Your task to perform on an android device: turn off translation in the chrome app Image 0: 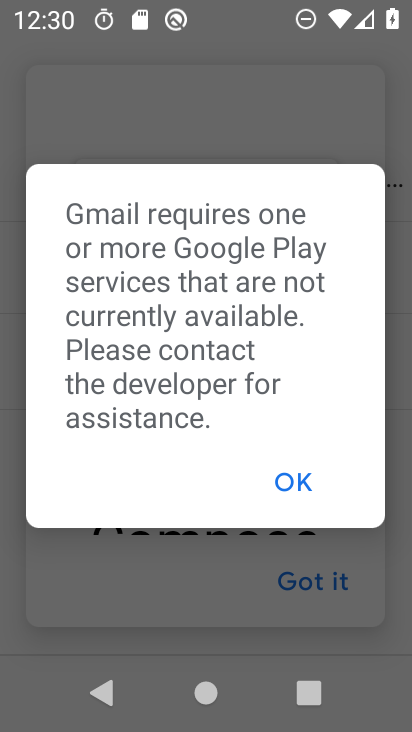
Step 0: press home button
Your task to perform on an android device: turn off translation in the chrome app Image 1: 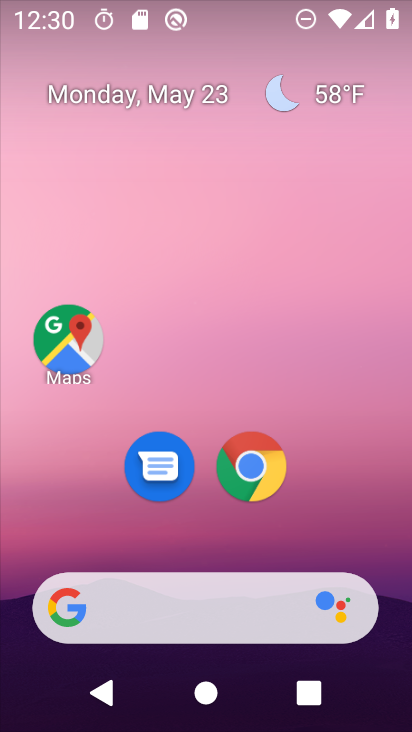
Step 1: click (172, 548)
Your task to perform on an android device: turn off translation in the chrome app Image 2: 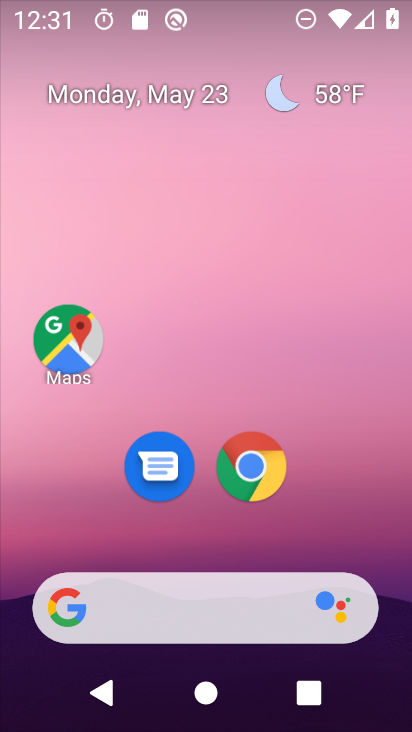
Step 2: click (256, 467)
Your task to perform on an android device: turn off translation in the chrome app Image 3: 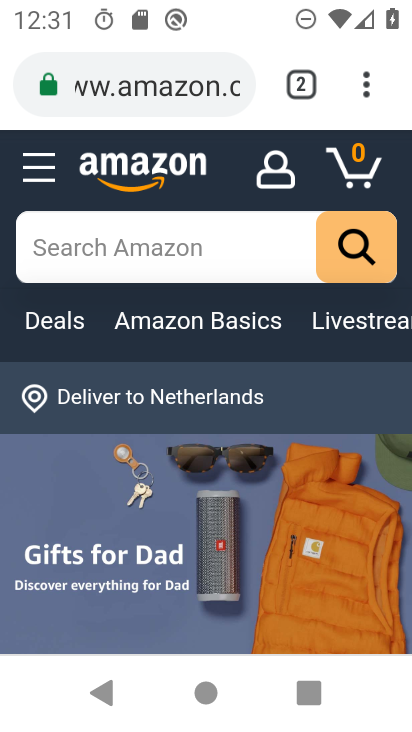
Step 3: click (357, 74)
Your task to perform on an android device: turn off translation in the chrome app Image 4: 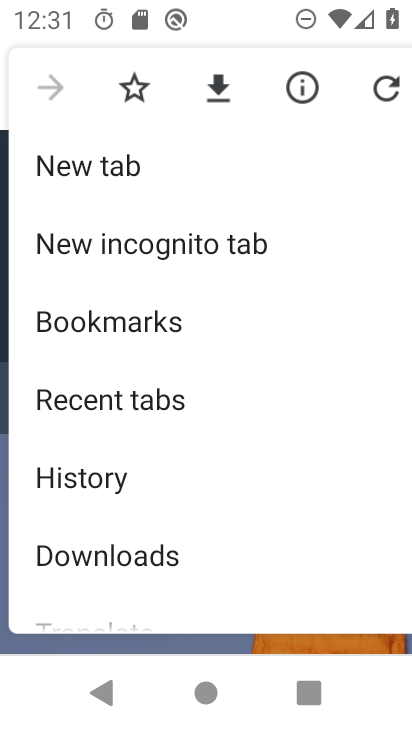
Step 4: drag from (155, 518) to (173, 121)
Your task to perform on an android device: turn off translation in the chrome app Image 5: 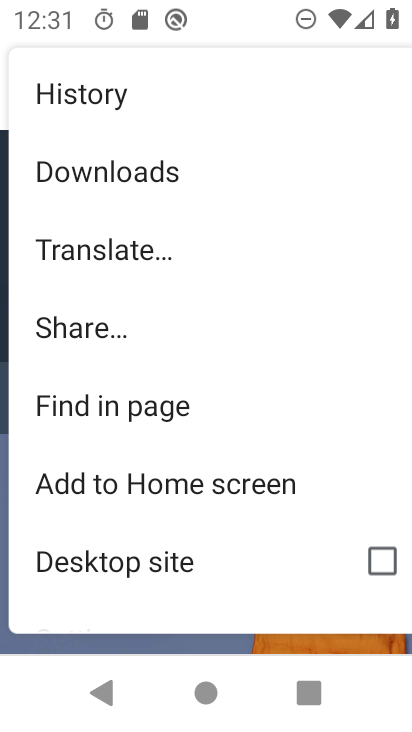
Step 5: drag from (219, 540) to (203, 229)
Your task to perform on an android device: turn off translation in the chrome app Image 6: 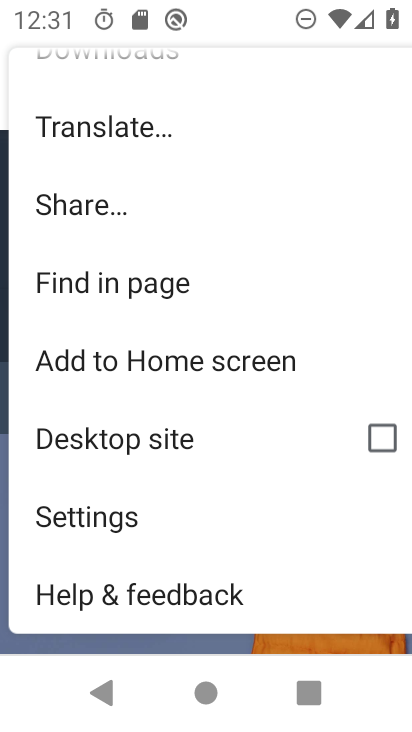
Step 6: click (117, 519)
Your task to perform on an android device: turn off translation in the chrome app Image 7: 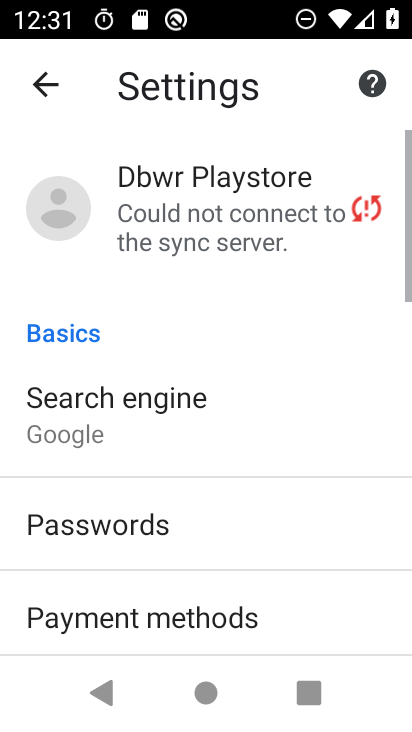
Step 7: drag from (269, 572) to (237, 133)
Your task to perform on an android device: turn off translation in the chrome app Image 8: 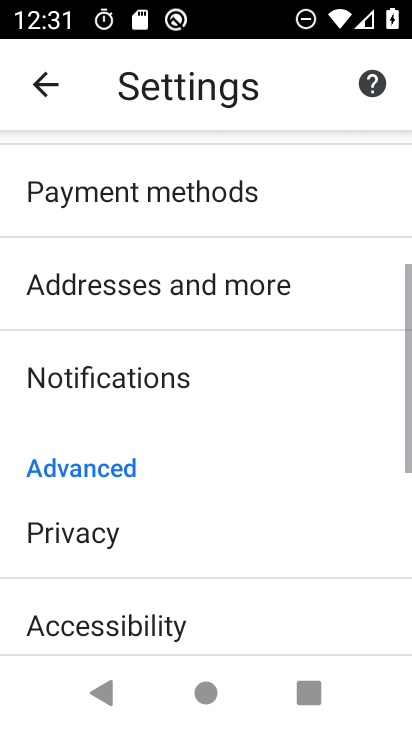
Step 8: drag from (269, 587) to (260, 178)
Your task to perform on an android device: turn off translation in the chrome app Image 9: 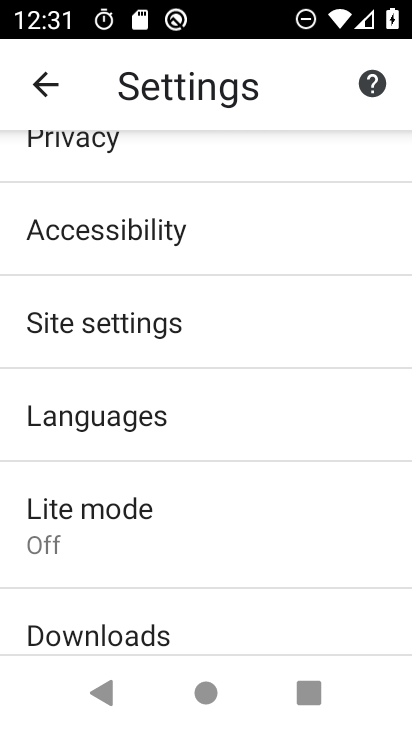
Step 9: click (83, 407)
Your task to perform on an android device: turn off translation in the chrome app Image 10: 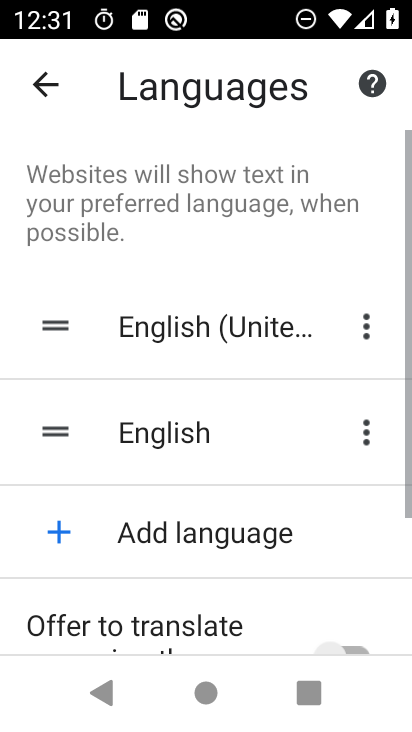
Step 10: task complete